Your task to perform on an android device: toggle pop-ups in chrome Image 0: 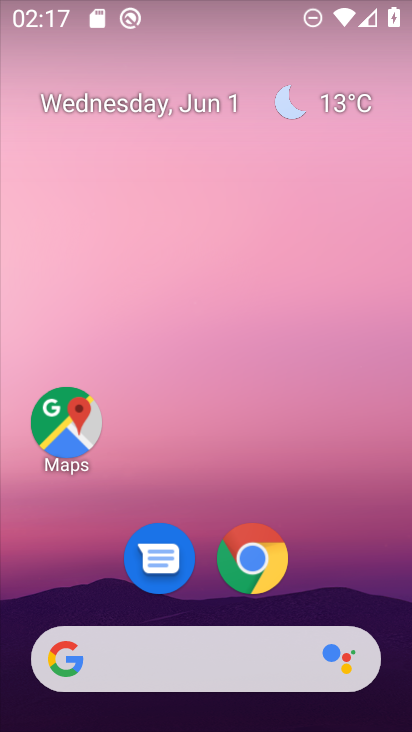
Step 0: click (251, 573)
Your task to perform on an android device: toggle pop-ups in chrome Image 1: 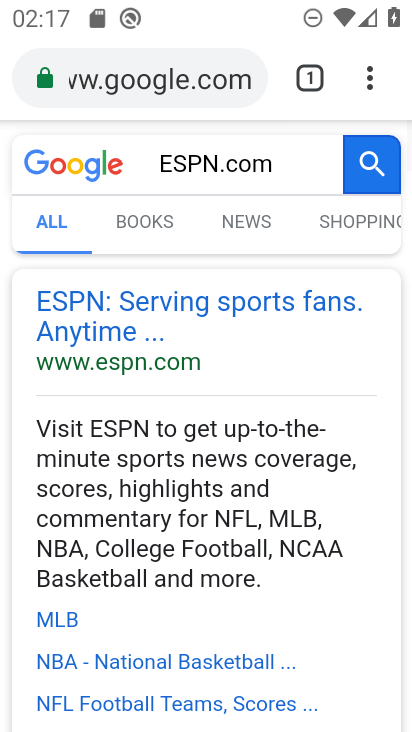
Step 1: click (369, 69)
Your task to perform on an android device: toggle pop-ups in chrome Image 2: 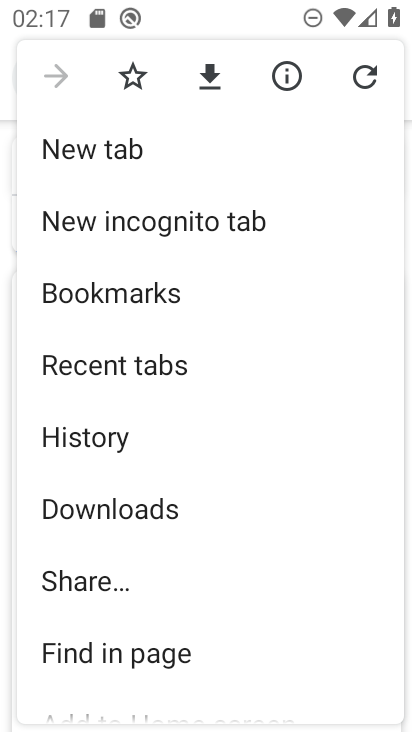
Step 2: drag from (241, 631) to (257, 444)
Your task to perform on an android device: toggle pop-ups in chrome Image 3: 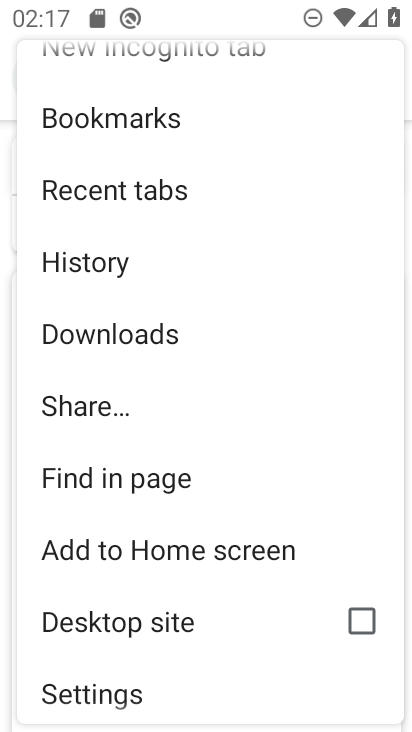
Step 3: click (79, 684)
Your task to perform on an android device: toggle pop-ups in chrome Image 4: 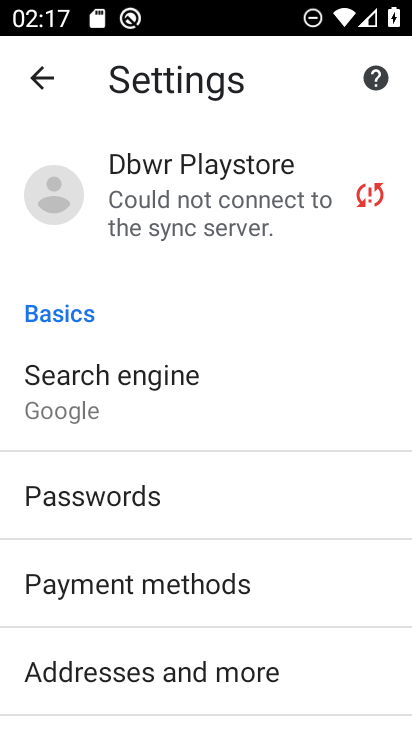
Step 4: drag from (341, 380) to (335, 286)
Your task to perform on an android device: toggle pop-ups in chrome Image 5: 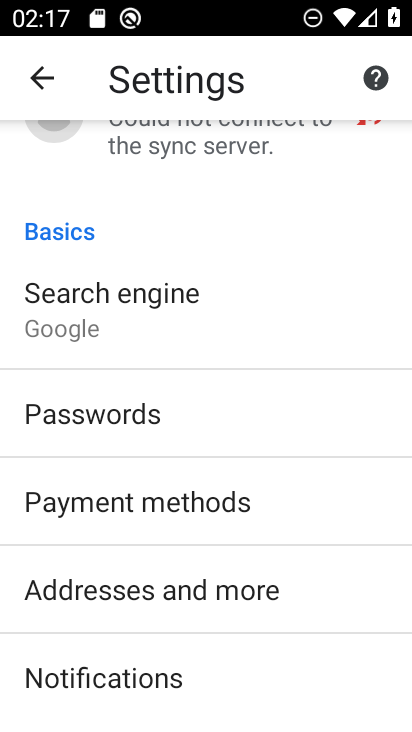
Step 5: drag from (307, 672) to (315, 344)
Your task to perform on an android device: toggle pop-ups in chrome Image 6: 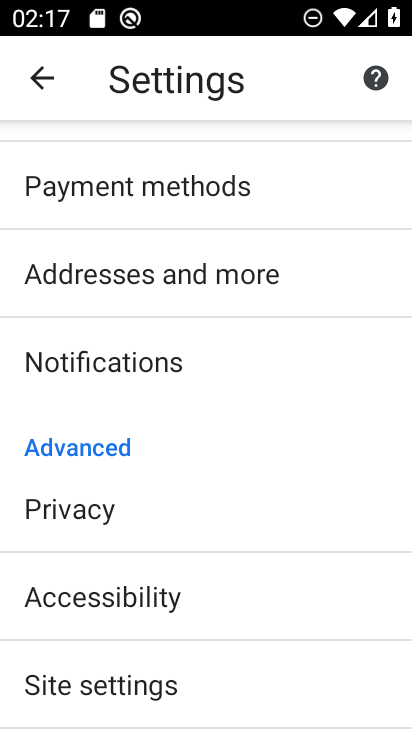
Step 6: click (51, 681)
Your task to perform on an android device: toggle pop-ups in chrome Image 7: 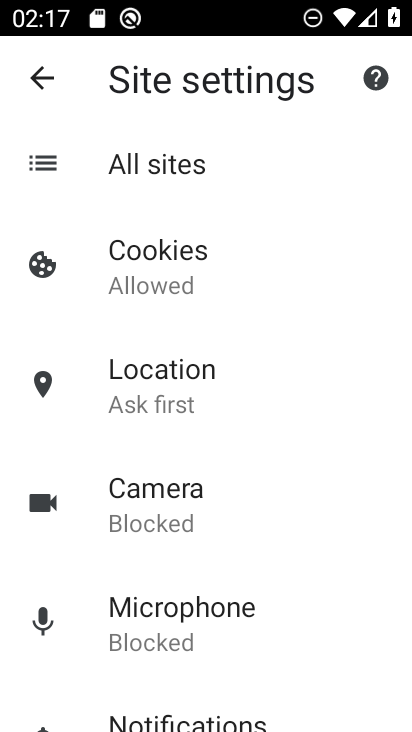
Step 7: drag from (294, 695) to (304, 392)
Your task to perform on an android device: toggle pop-ups in chrome Image 8: 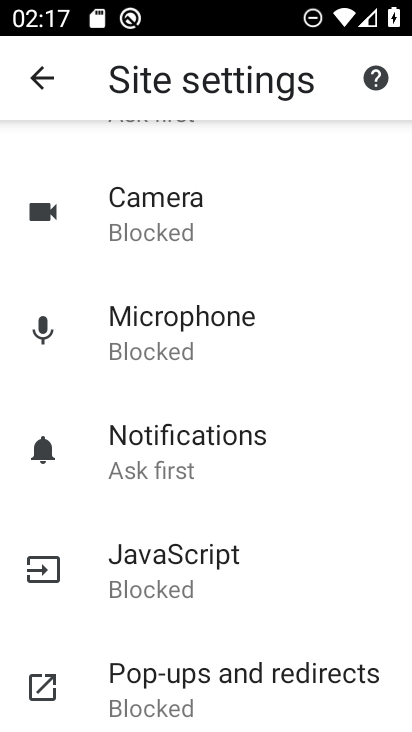
Step 8: click (177, 688)
Your task to perform on an android device: toggle pop-ups in chrome Image 9: 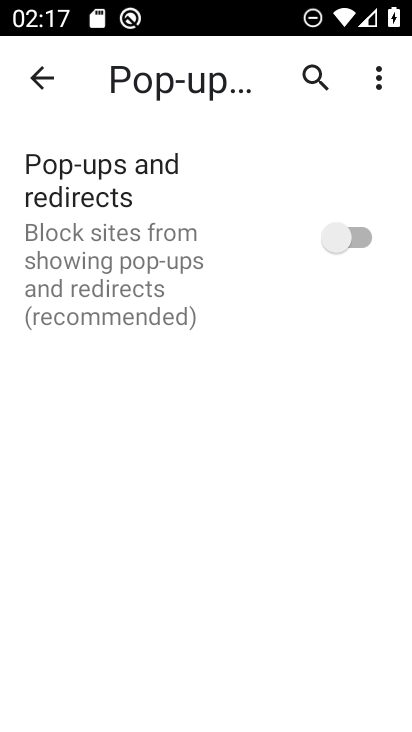
Step 9: click (346, 233)
Your task to perform on an android device: toggle pop-ups in chrome Image 10: 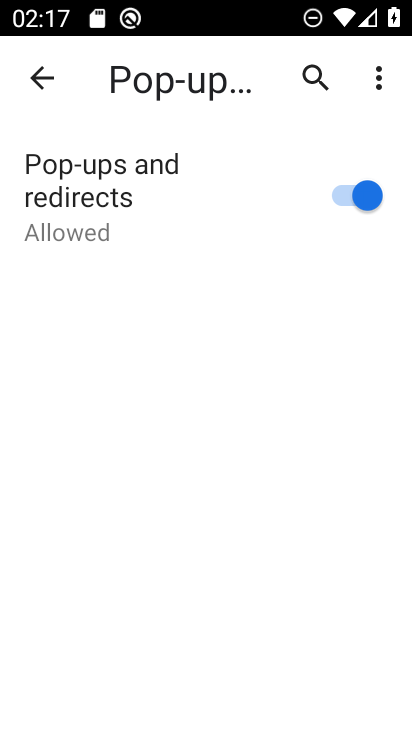
Step 10: task complete